Your task to perform on an android device: Open Wikipedia Image 0: 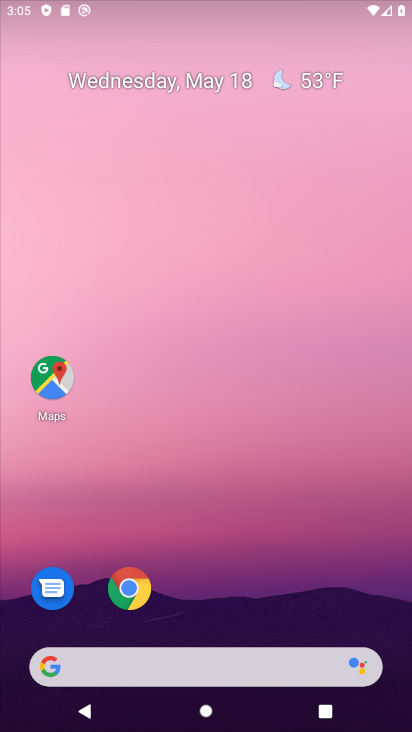
Step 0: press home button
Your task to perform on an android device: Open Wikipedia Image 1: 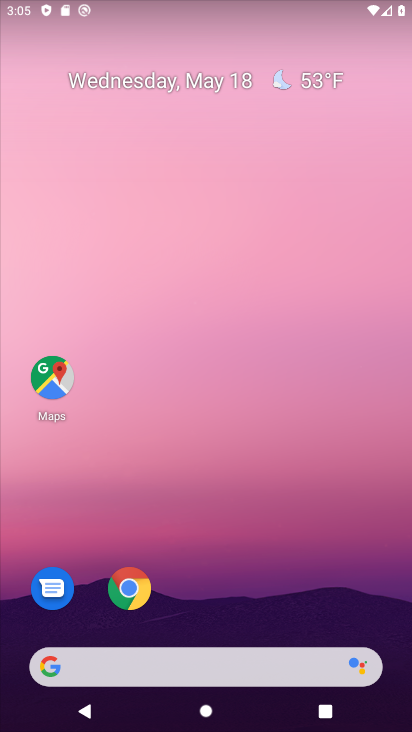
Step 1: click (130, 601)
Your task to perform on an android device: Open Wikipedia Image 2: 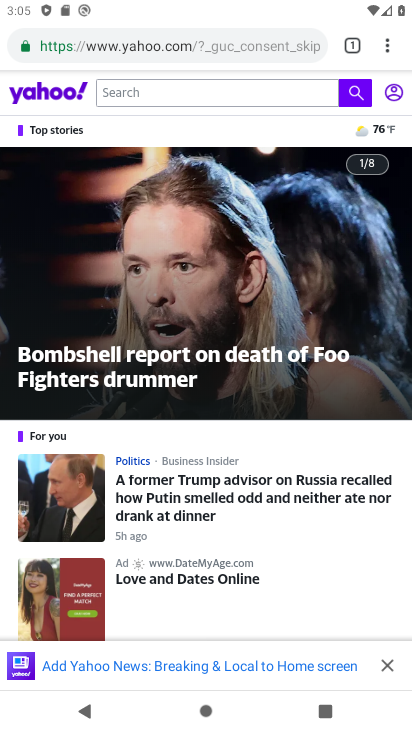
Step 2: click (206, 51)
Your task to perform on an android device: Open Wikipedia Image 3: 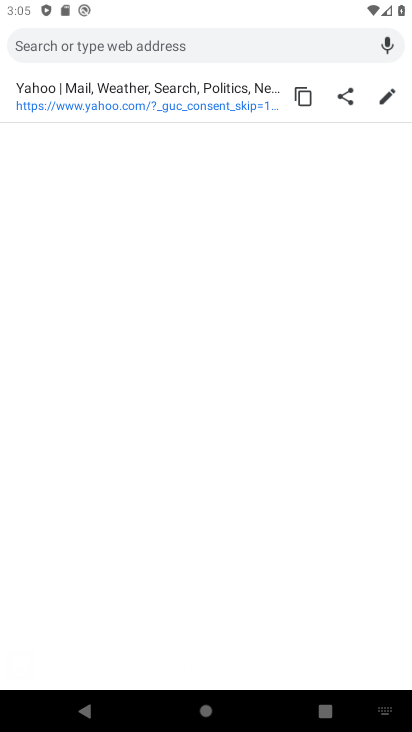
Step 3: type " Wikipedia"
Your task to perform on an android device: Open Wikipedia Image 4: 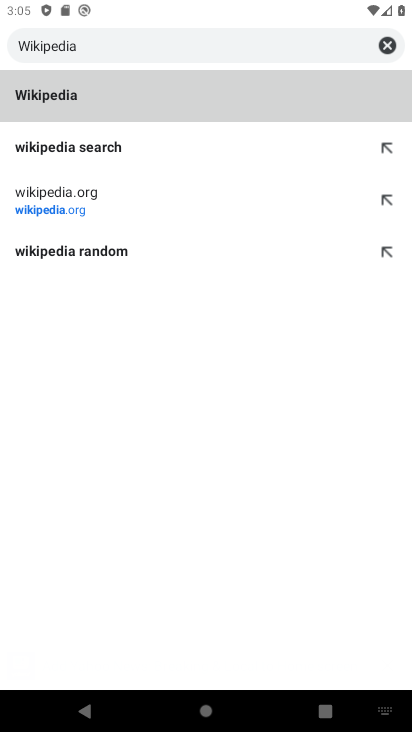
Step 4: click (256, 95)
Your task to perform on an android device: Open Wikipedia Image 5: 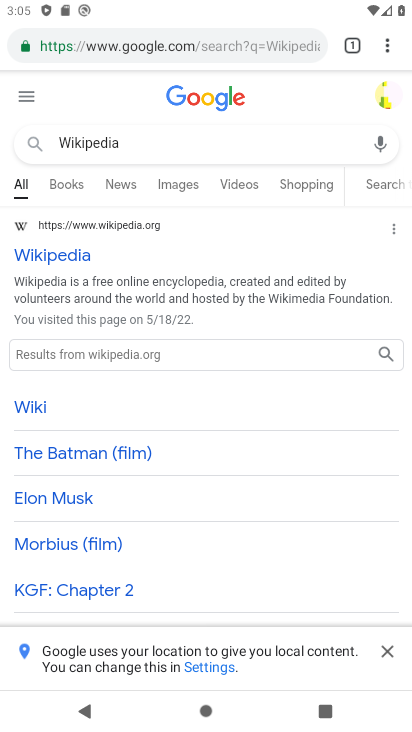
Step 5: click (91, 248)
Your task to perform on an android device: Open Wikipedia Image 6: 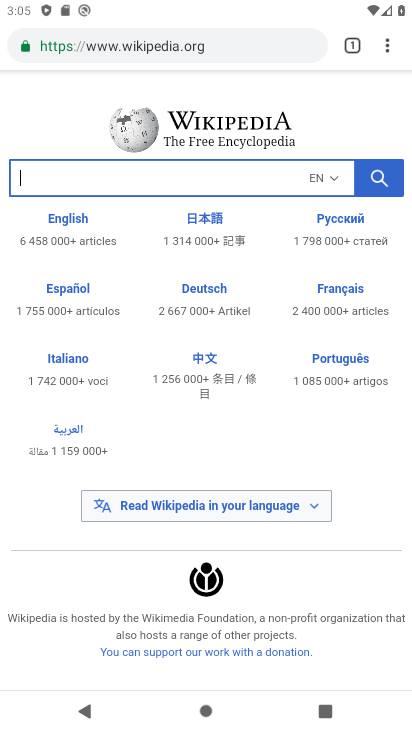
Step 6: task complete